Your task to perform on an android device: open app "Firefox Browser" (install if not already installed) Image 0: 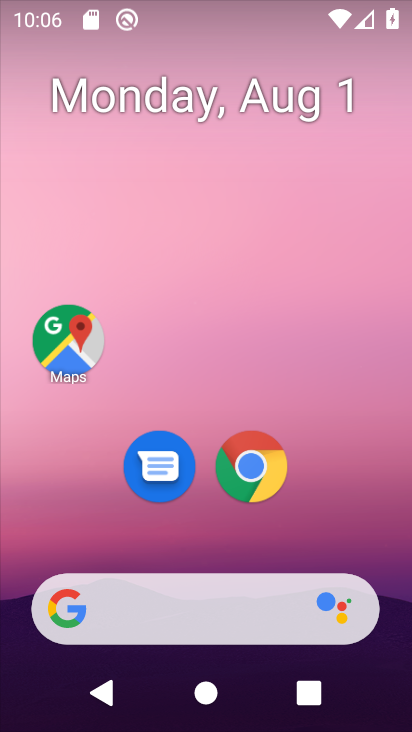
Step 0: drag from (236, 709) to (216, 93)
Your task to perform on an android device: open app "Firefox Browser" (install if not already installed) Image 1: 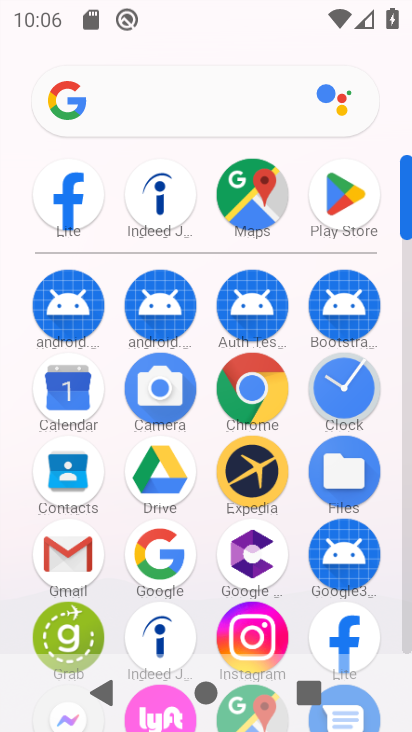
Step 1: click (333, 196)
Your task to perform on an android device: open app "Firefox Browser" (install if not already installed) Image 2: 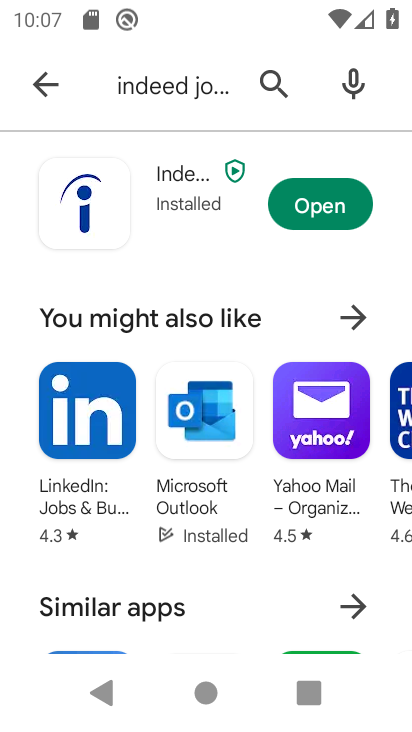
Step 2: task complete